Your task to perform on an android device: Open wifi settings Image 0: 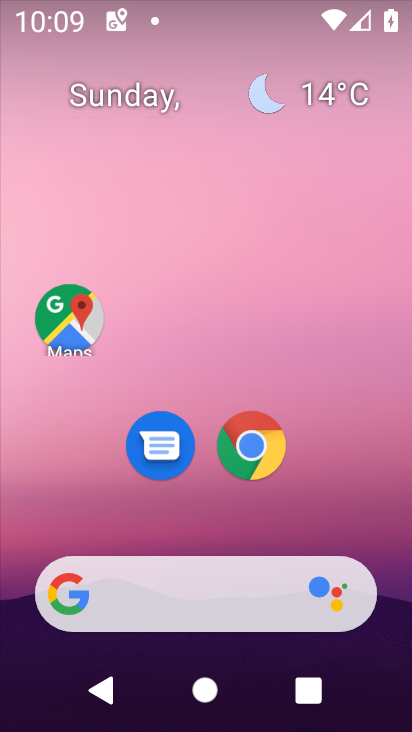
Step 0: drag from (216, 533) to (282, 152)
Your task to perform on an android device: Open wifi settings Image 1: 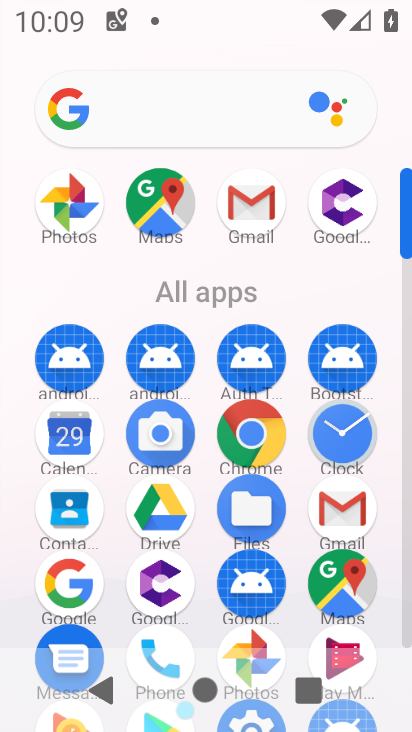
Step 1: drag from (211, 600) to (248, 126)
Your task to perform on an android device: Open wifi settings Image 2: 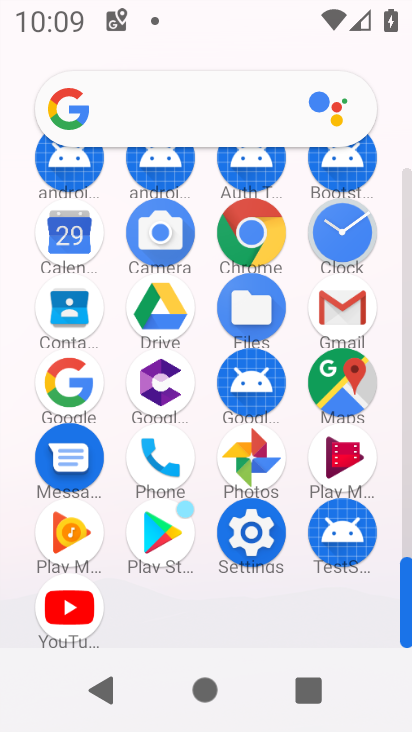
Step 2: click (239, 553)
Your task to perform on an android device: Open wifi settings Image 3: 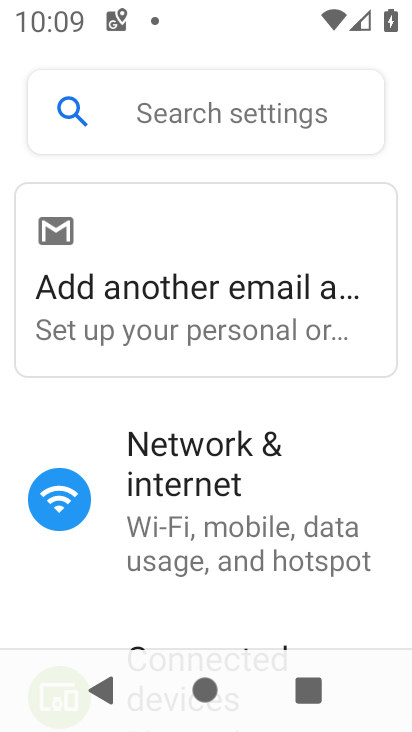
Step 3: click (233, 443)
Your task to perform on an android device: Open wifi settings Image 4: 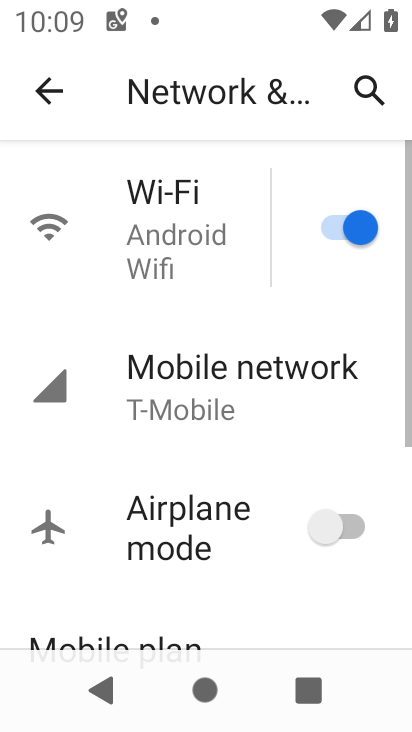
Step 4: click (202, 252)
Your task to perform on an android device: Open wifi settings Image 5: 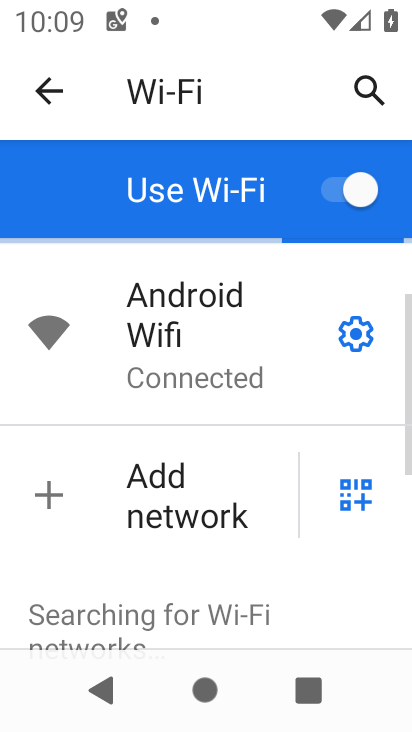
Step 5: click (359, 333)
Your task to perform on an android device: Open wifi settings Image 6: 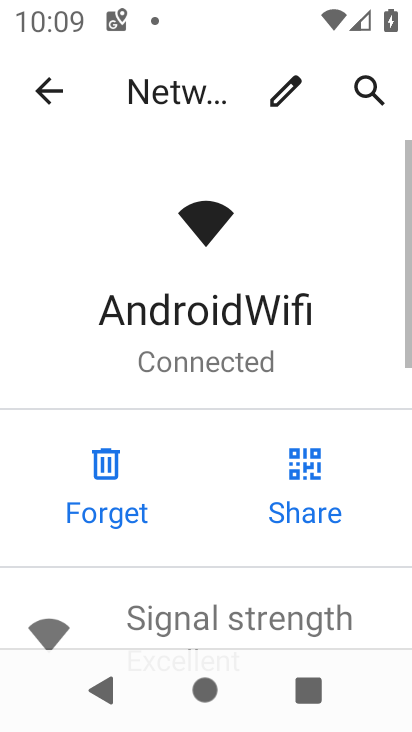
Step 6: task complete